Your task to perform on an android device: empty trash in google photos Image 0: 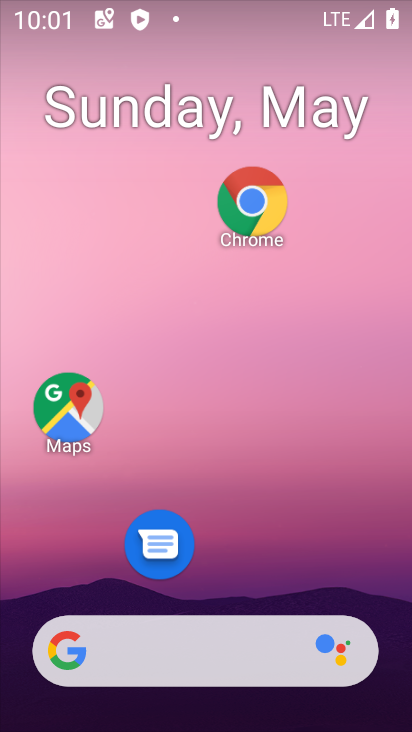
Step 0: drag from (251, 549) to (297, 118)
Your task to perform on an android device: empty trash in google photos Image 1: 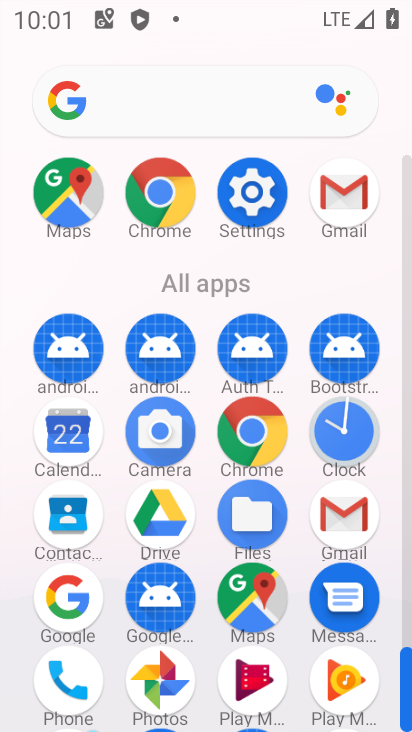
Step 1: click (168, 688)
Your task to perform on an android device: empty trash in google photos Image 2: 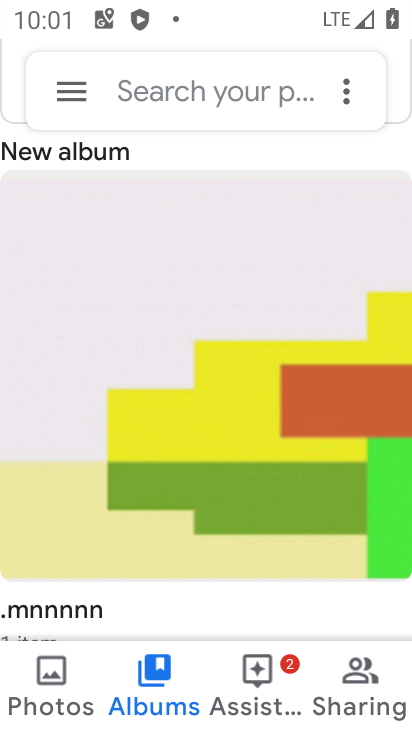
Step 2: click (81, 94)
Your task to perform on an android device: empty trash in google photos Image 3: 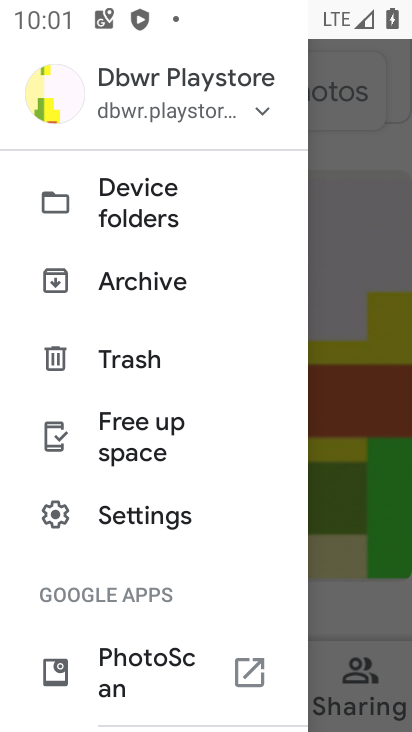
Step 3: click (128, 363)
Your task to perform on an android device: empty trash in google photos Image 4: 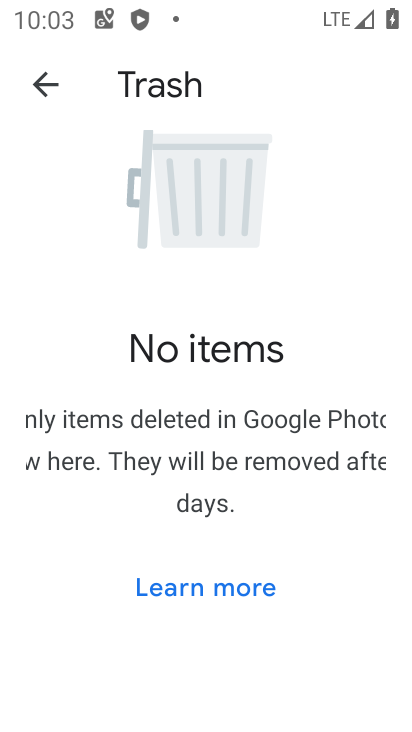
Step 4: task complete